Your task to perform on an android device: Play the last video I watched on Youtube Image 0: 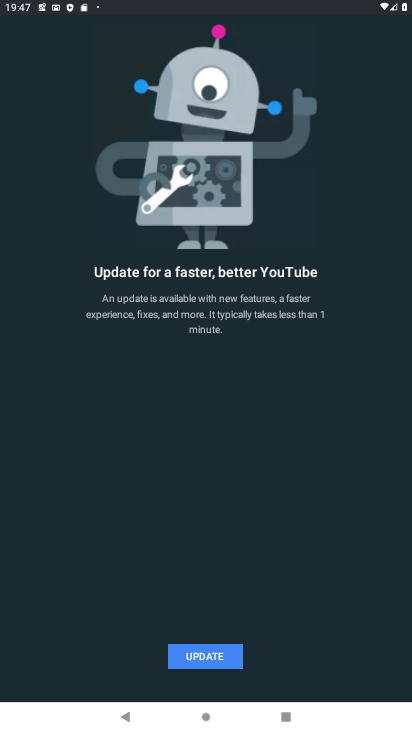
Step 0: task impossible